Your task to perform on an android device: turn off translation in the chrome app Image 0: 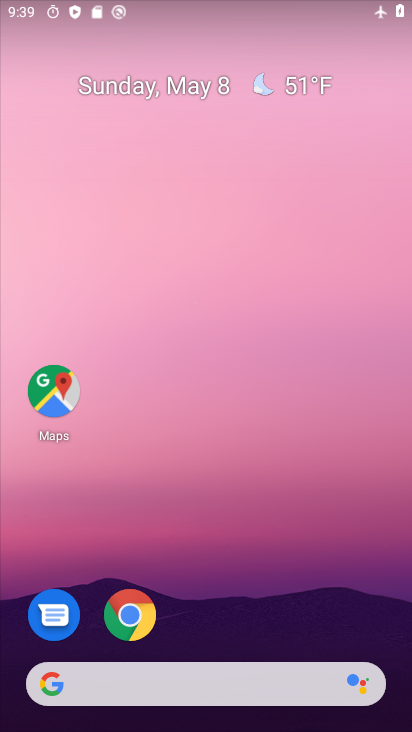
Step 0: click (142, 620)
Your task to perform on an android device: turn off translation in the chrome app Image 1: 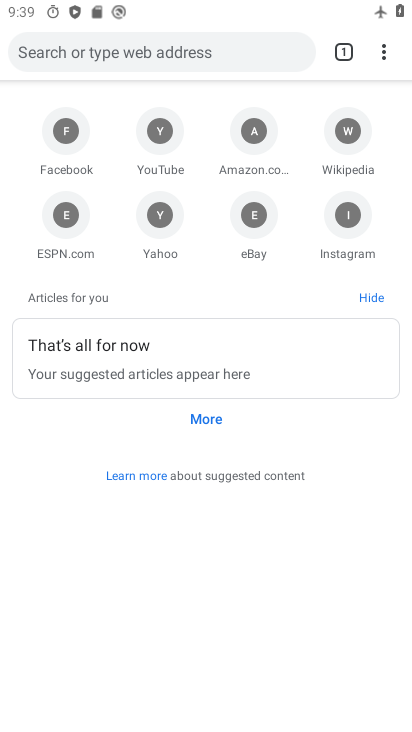
Step 1: press home button
Your task to perform on an android device: turn off translation in the chrome app Image 2: 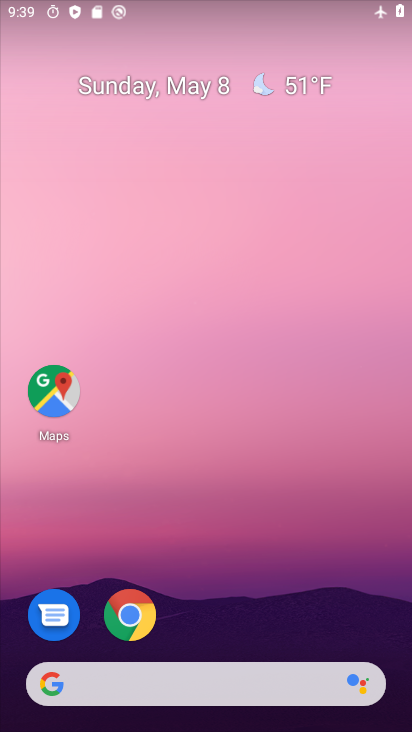
Step 2: click (135, 619)
Your task to perform on an android device: turn off translation in the chrome app Image 3: 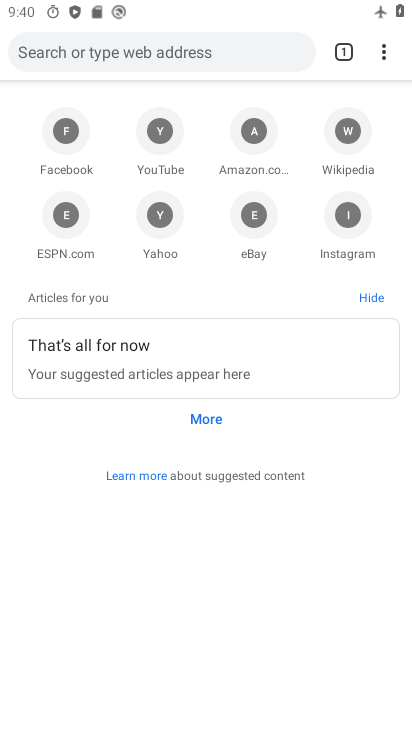
Step 3: click (379, 44)
Your task to perform on an android device: turn off translation in the chrome app Image 4: 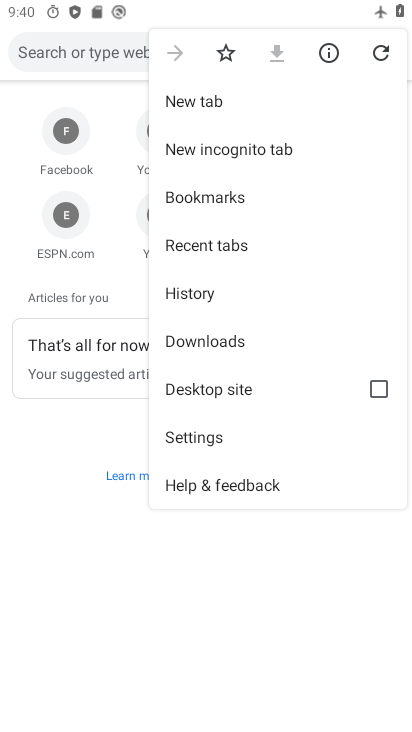
Step 4: click (230, 430)
Your task to perform on an android device: turn off translation in the chrome app Image 5: 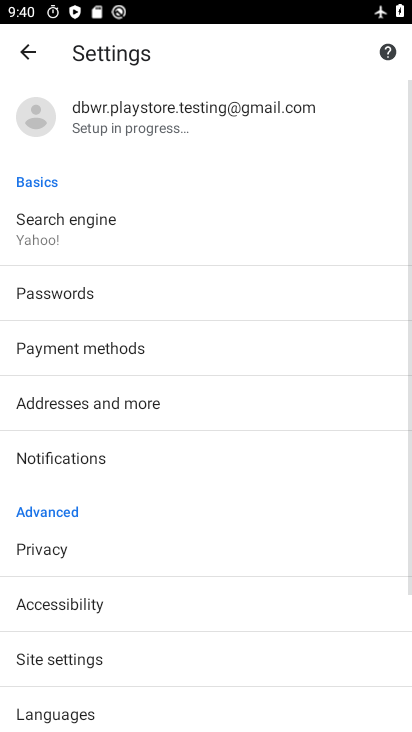
Step 5: drag from (127, 637) to (171, 363)
Your task to perform on an android device: turn off translation in the chrome app Image 6: 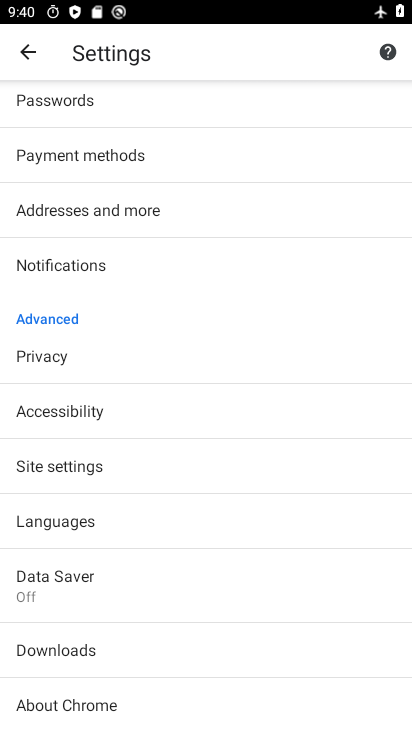
Step 6: click (98, 522)
Your task to perform on an android device: turn off translation in the chrome app Image 7: 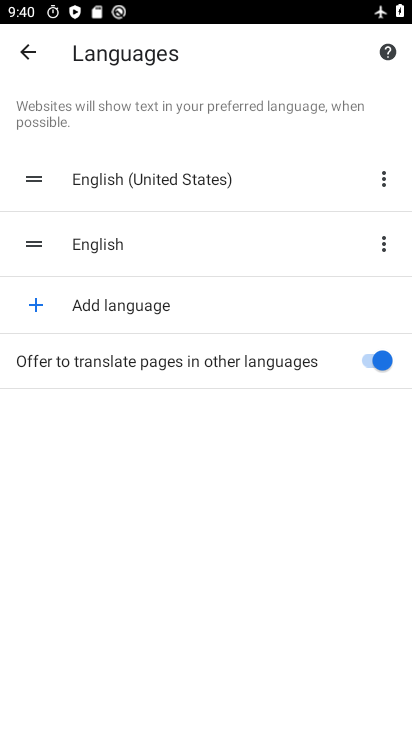
Step 7: click (368, 366)
Your task to perform on an android device: turn off translation in the chrome app Image 8: 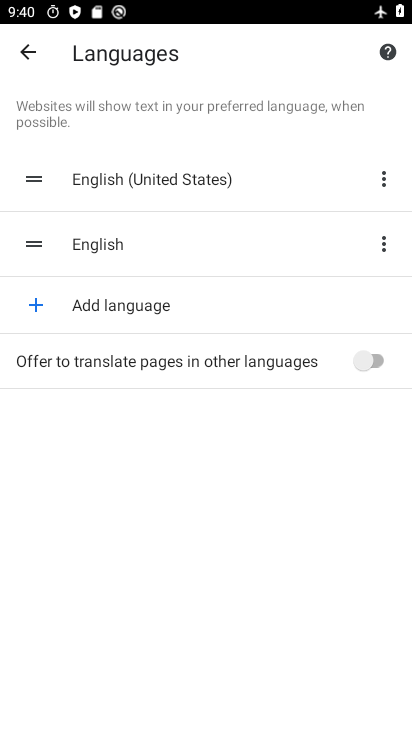
Step 8: task complete